Your task to perform on an android device: Go to CNN.com Image 0: 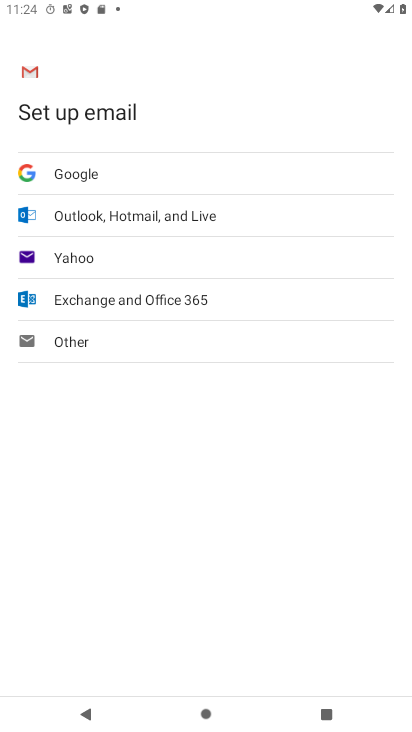
Step 0: click (43, 286)
Your task to perform on an android device: Go to CNN.com Image 1: 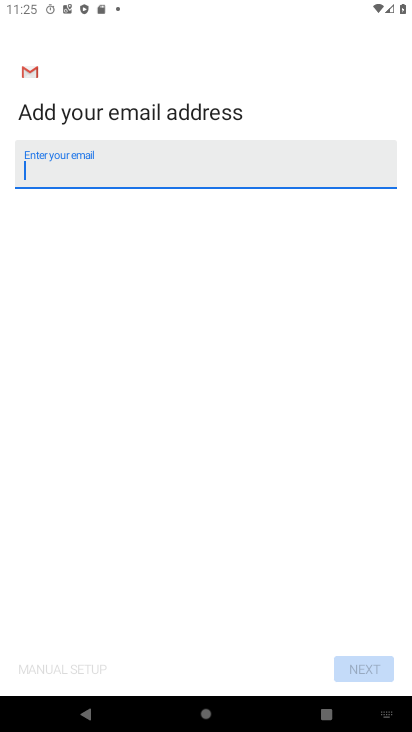
Step 1: press home button
Your task to perform on an android device: Go to CNN.com Image 2: 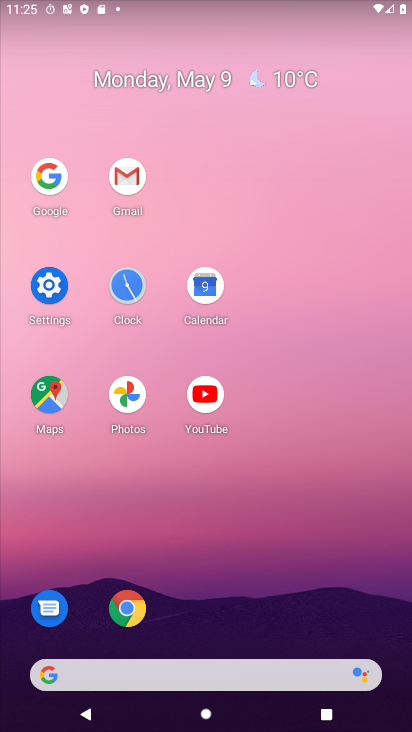
Step 2: click (48, 285)
Your task to perform on an android device: Go to CNN.com Image 3: 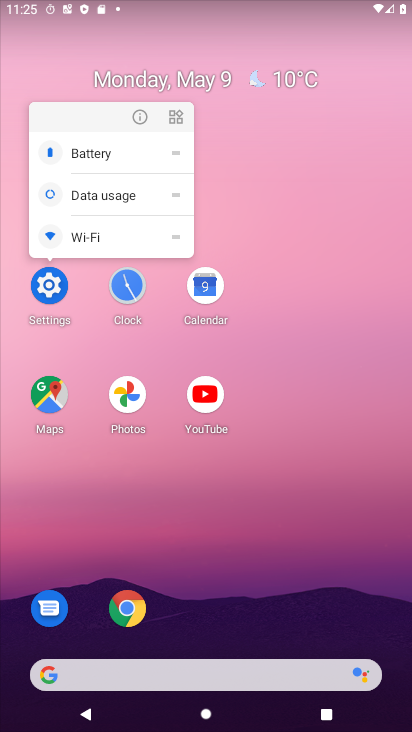
Step 3: click (42, 268)
Your task to perform on an android device: Go to CNN.com Image 4: 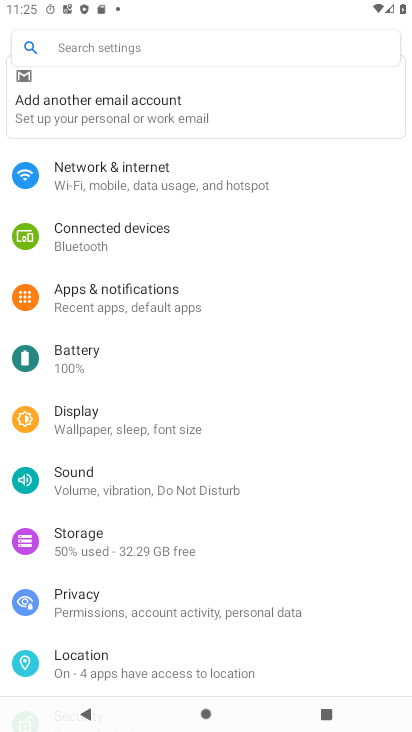
Step 4: press home button
Your task to perform on an android device: Go to CNN.com Image 5: 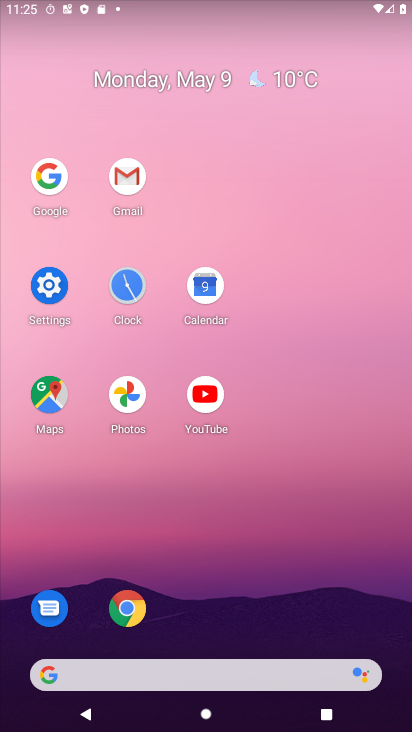
Step 5: click (124, 619)
Your task to perform on an android device: Go to CNN.com Image 6: 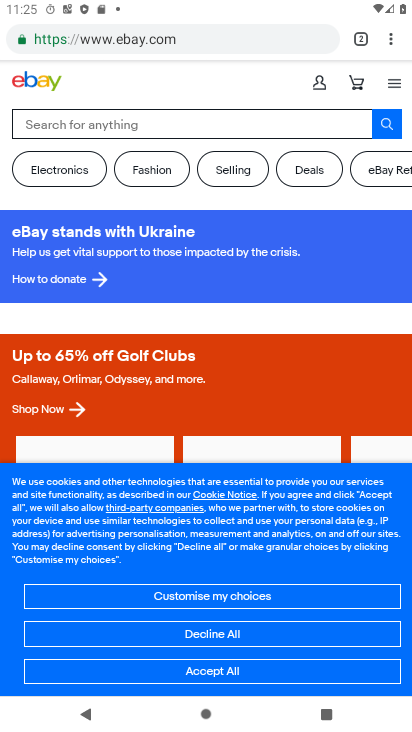
Step 6: click (359, 36)
Your task to perform on an android device: Go to CNN.com Image 7: 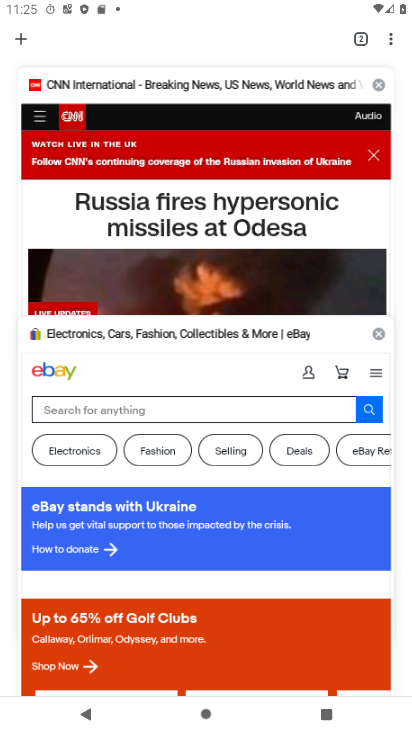
Step 7: click (26, 41)
Your task to perform on an android device: Go to CNN.com Image 8: 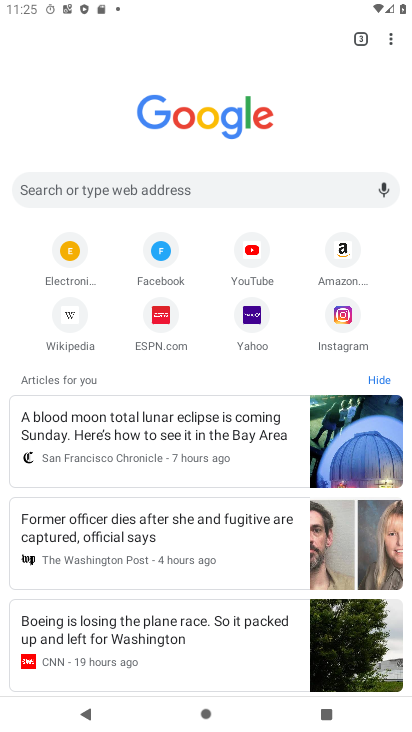
Step 8: click (143, 190)
Your task to perform on an android device: Go to CNN.com Image 9: 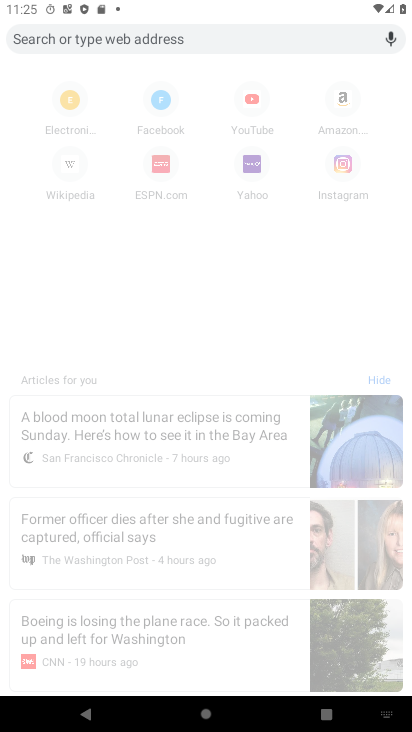
Step 9: type "cnn"
Your task to perform on an android device: Go to CNN.com Image 10: 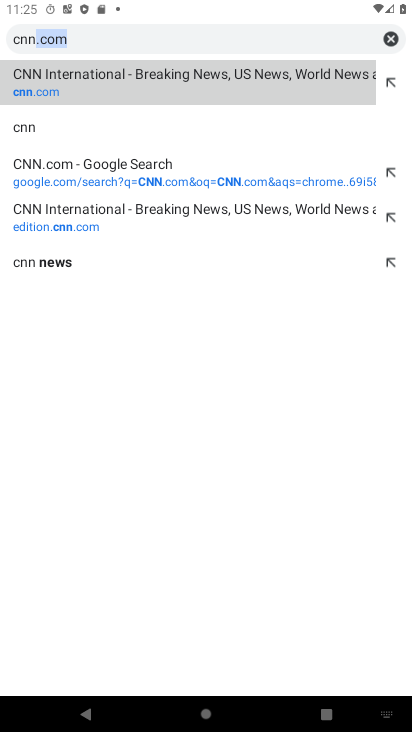
Step 10: click (49, 99)
Your task to perform on an android device: Go to CNN.com Image 11: 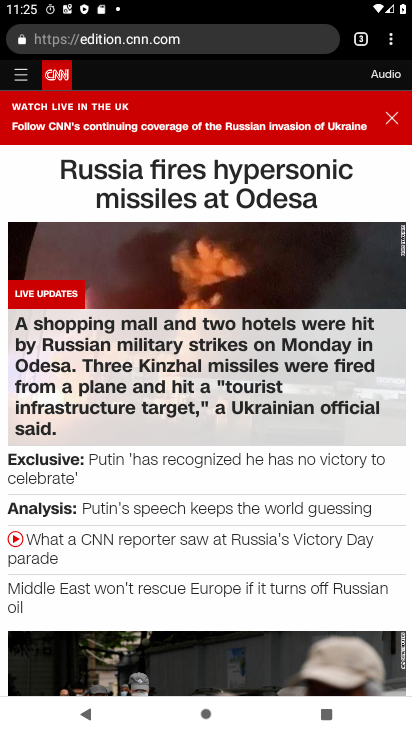
Step 11: task complete